Your task to perform on an android device: find which apps use the phone's location Image 0: 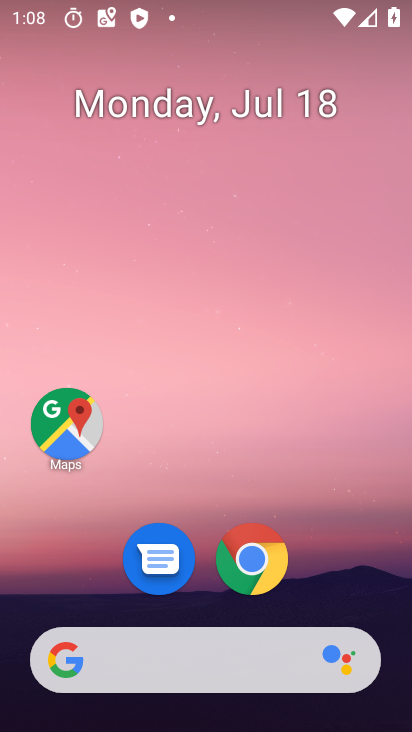
Step 0: drag from (63, 517) to (149, 18)
Your task to perform on an android device: find which apps use the phone's location Image 1: 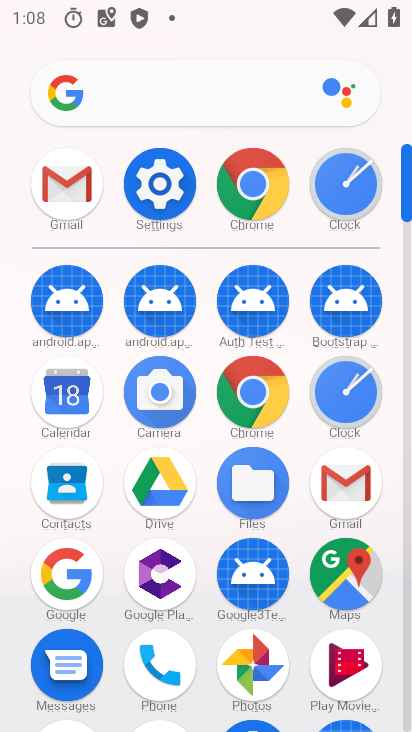
Step 1: click (164, 173)
Your task to perform on an android device: find which apps use the phone's location Image 2: 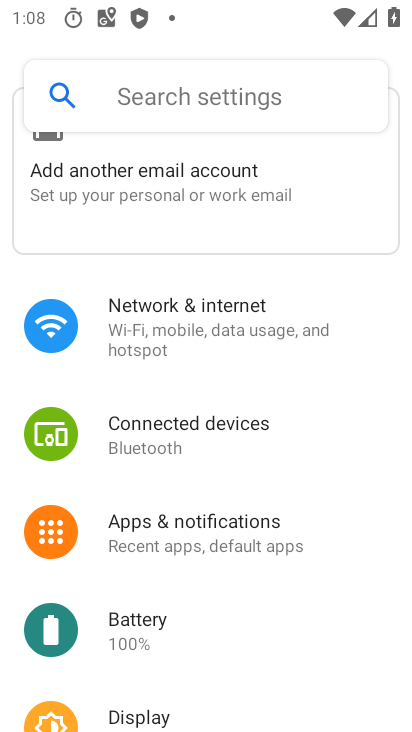
Step 2: drag from (169, 666) to (314, 61)
Your task to perform on an android device: find which apps use the phone's location Image 3: 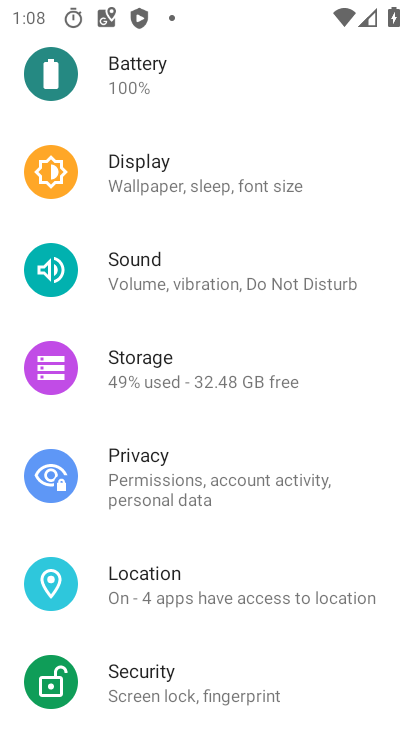
Step 3: click (143, 595)
Your task to perform on an android device: find which apps use the phone's location Image 4: 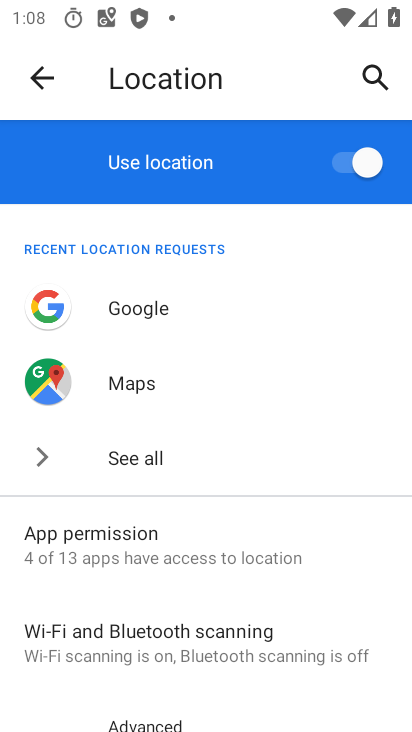
Step 4: drag from (154, 595) to (231, 84)
Your task to perform on an android device: find which apps use the phone's location Image 5: 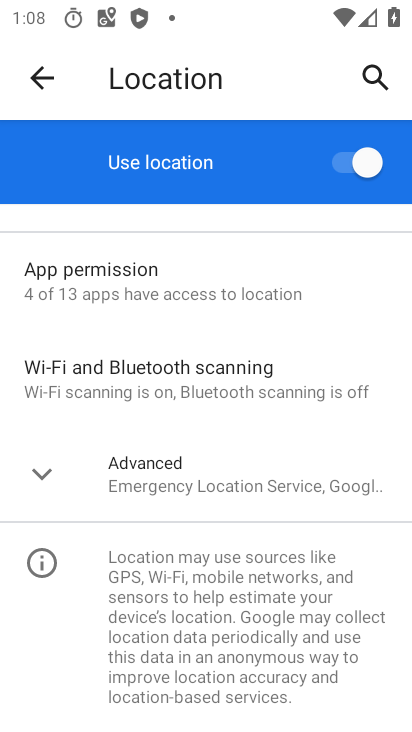
Step 5: drag from (233, 298) to (159, 724)
Your task to perform on an android device: find which apps use the phone's location Image 6: 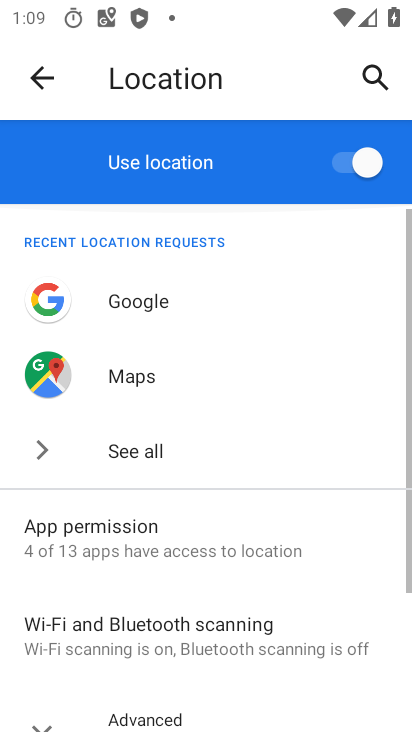
Step 6: click (86, 552)
Your task to perform on an android device: find which apps use the phone's location Image 7: 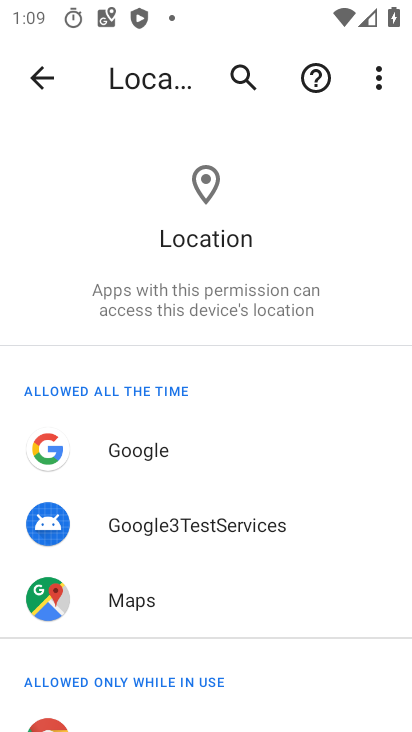
Step 7: task complete